Your task to perform on an android device: Open Google Chrome Image 0: 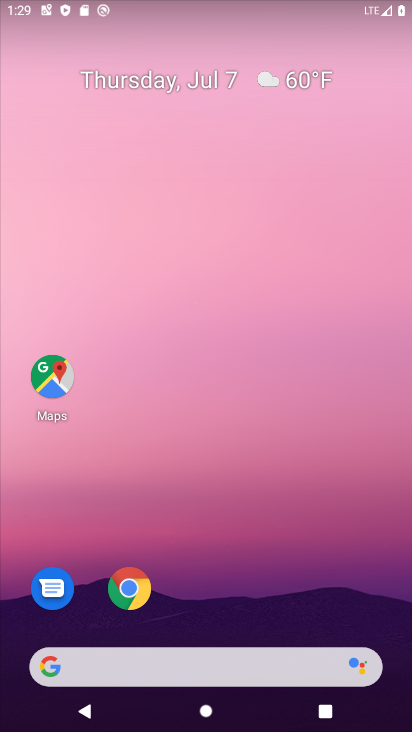
Step 0: drag from (237, 603) to (229, 239)
Your task to perform on an android device: Open Google Chrome Image 1: 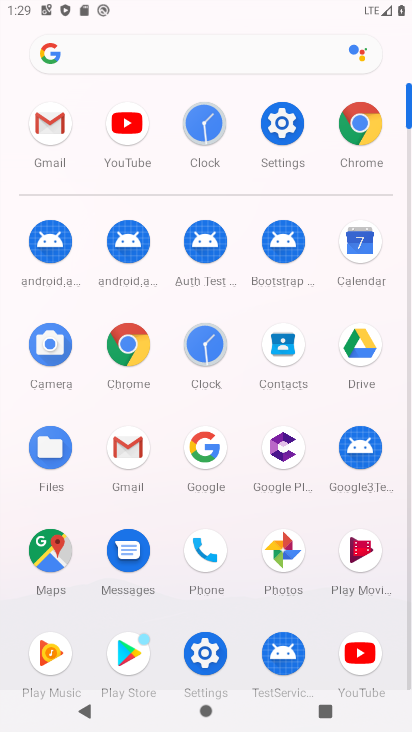
Step 1: click (366, 110)
Your task to perform on an android device: Open Google Chrome Image 2: 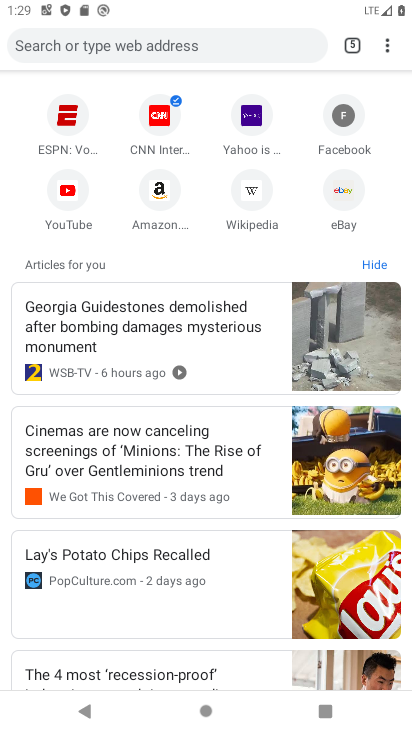
Step 2: click (391, 50)
Your task to perform on an android device: Open Google Chrome Image 3: 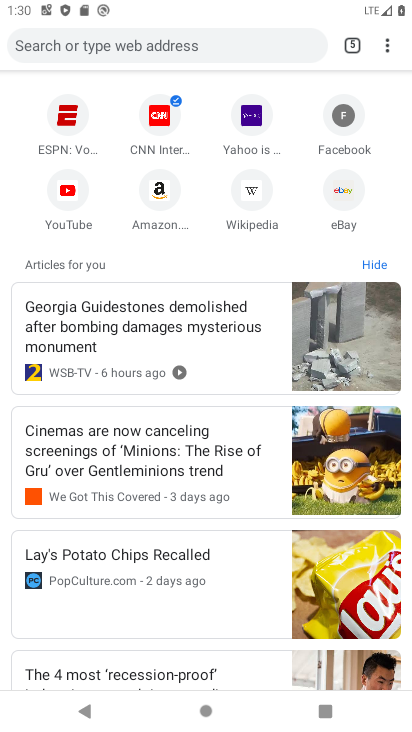
Step 3: task complete